Your task to perform on an android device: Show me productivity apps on the Play Store Image 0: 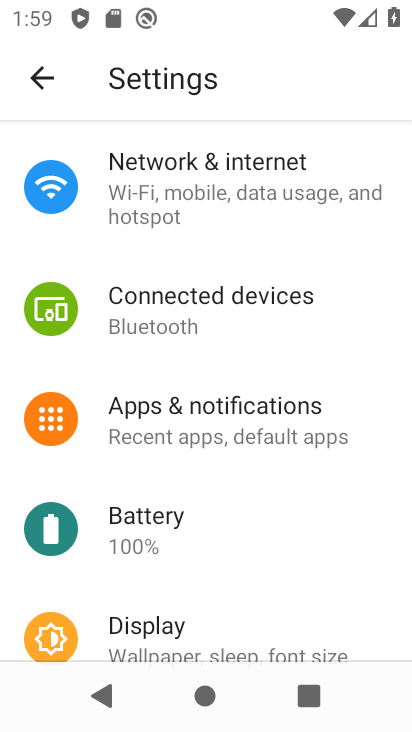
Step 0: press home button
Your task to perform on an android device: Show me productivity apps on the Play Store Image 1: 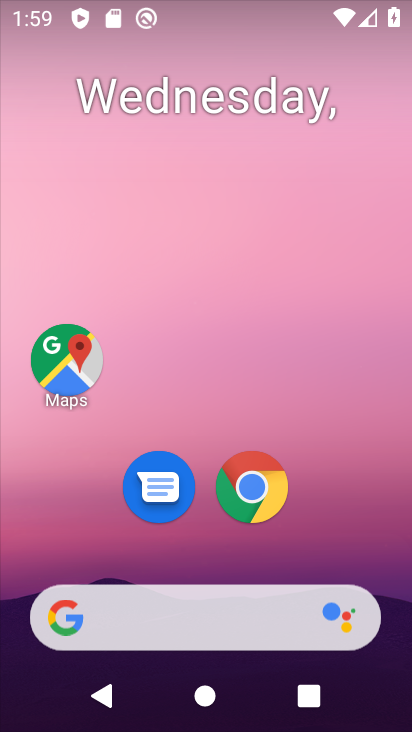
Step 1: drag from (194, 382) to (210, 52)
Your task to perform on an android device: Show me productivity apps on the Play Store Image 2: 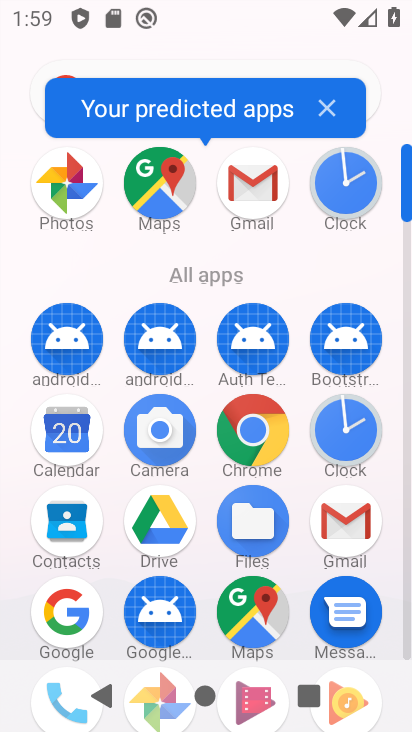
Step 2: drag from (198, 510) to (210, 249)
Your task to perform on an android device: Show me productivity apps on the Play Store Image 3: 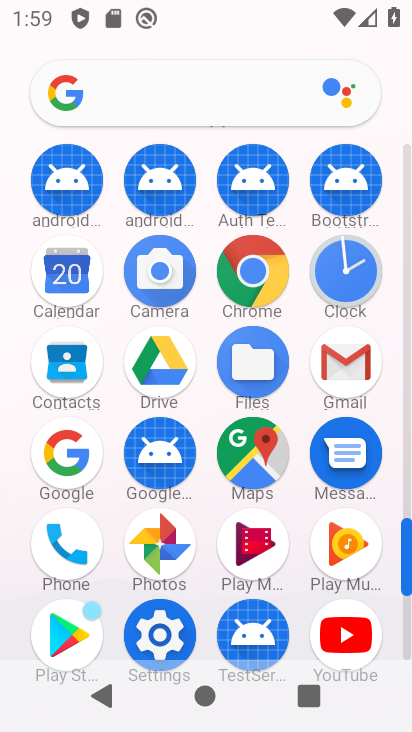
Step 3: click (72, 625)
Your task to perform on an android device: Show me productivity apps on the Play Store Image 4: 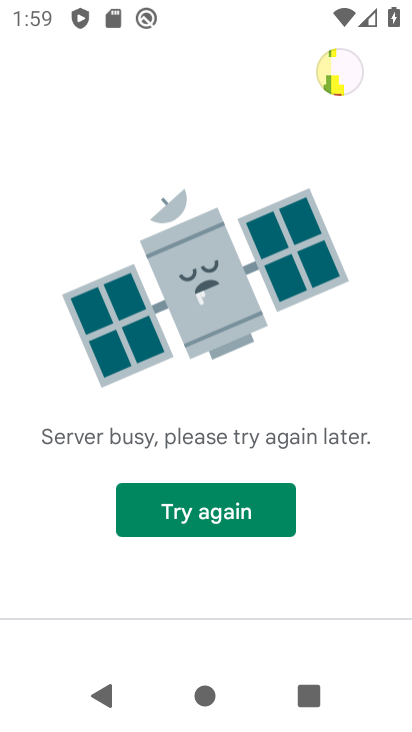
Step 4: click (228, 519)
Your task to perform on an android device: Show me productivity apps on the Play Store Image 5: 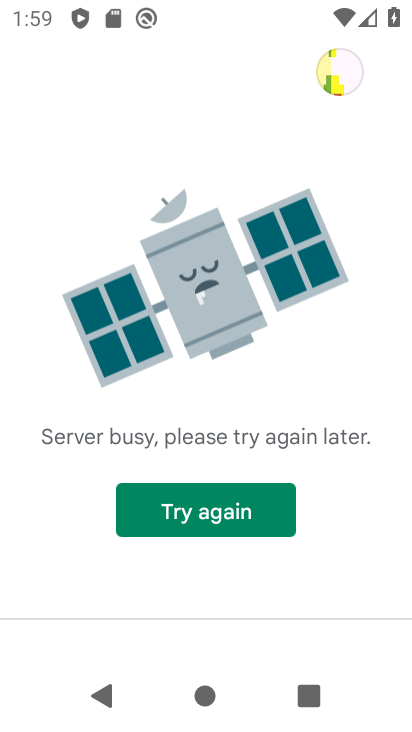
Step 5: click (228, 519)
Your task to perform on an android device: Show me productivity apps on the Play Store Image 6: 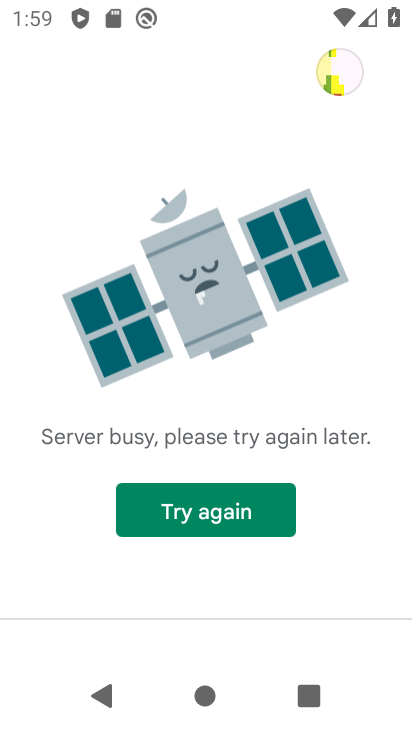
Step 6: task complete